Your task to perform on an android device: turn on data saver in the chrome app Image 0: 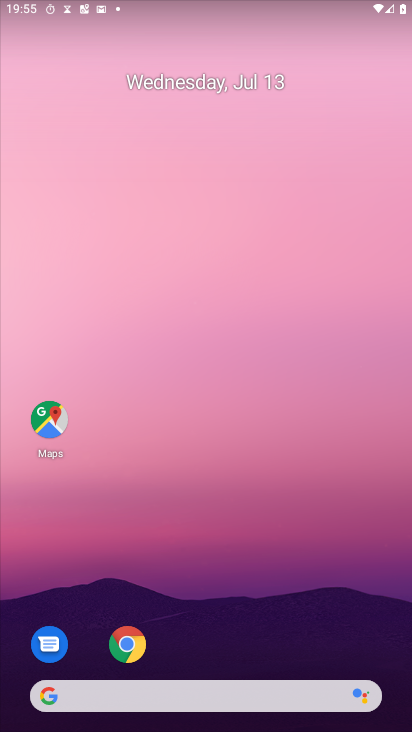
Step 0: click (135, 633)
Your task to perform on an android device: turn on data saver in the chrome app Image 1: 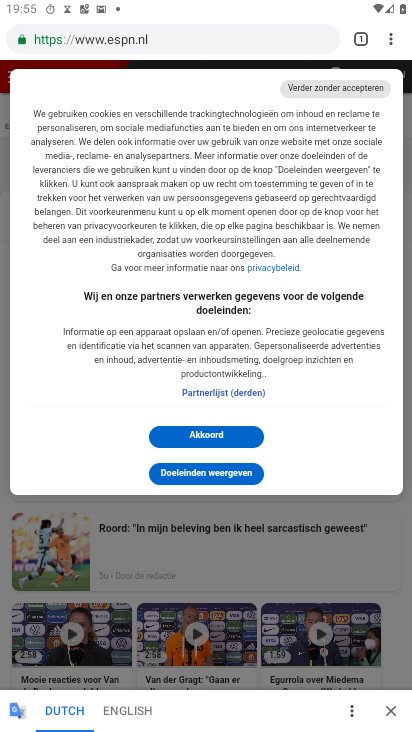
Step 1: click (396, 37)
Your task to perform on an android device: turn on data saver in the chrome app Image 2: 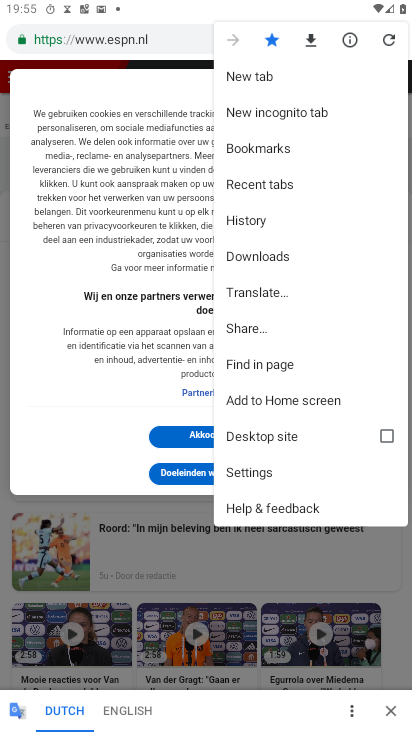
Step 2: click (241, 468)
Your task to perform on an android device: turn on data saver in the chrome app Image 3: 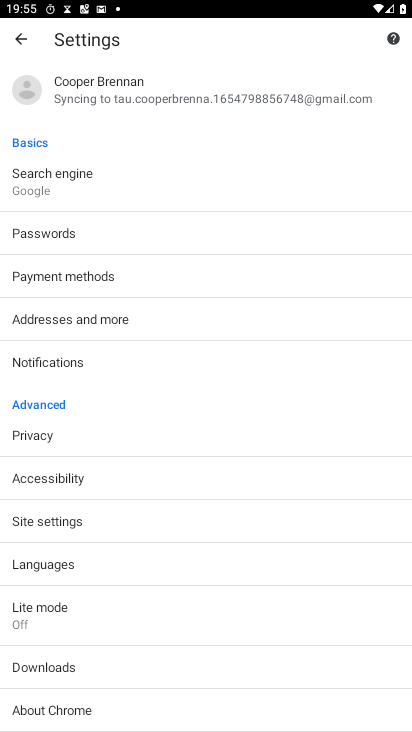
Step 3: click (66, 615)
Your task to perform on an android device: turn on data saver in the chrome app Image 4: 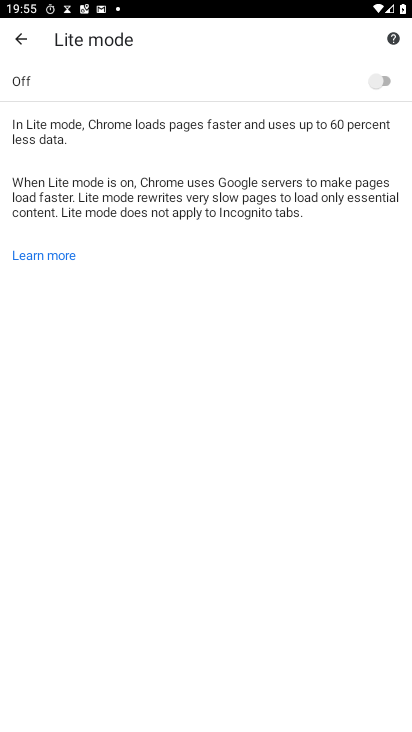
Step 4: click (389, 73)
Your task to perform on an android device: turn on data saver in the chrome app Image 5: 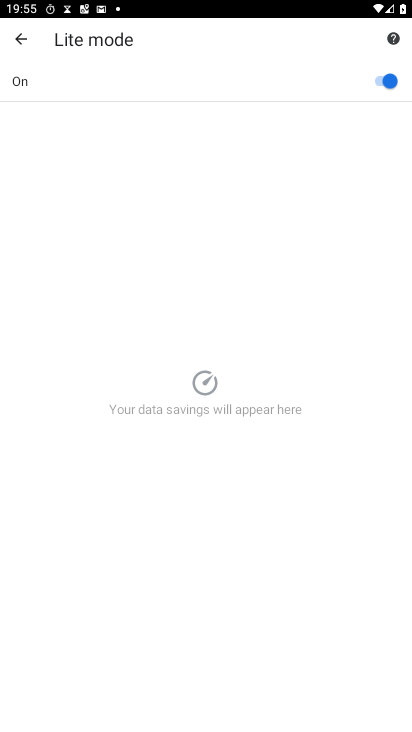
Step 5: task complete